Your task to perform on an android device: turn on data saver in the chrome app Image 0: 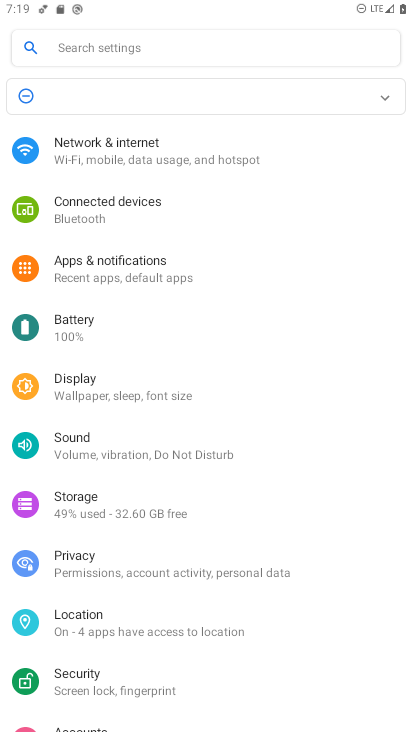
Step 0: drag from (255, 552) to (207, 314)
Your task to perform on an android device: turn on data saver in the chrome app Image 1: 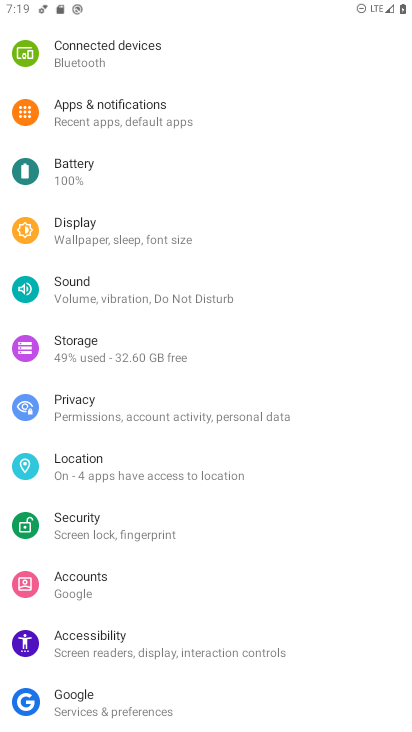
Step 1: press home button
Your task to perform on an android device: turn on data saver in the chrome app Image 2: 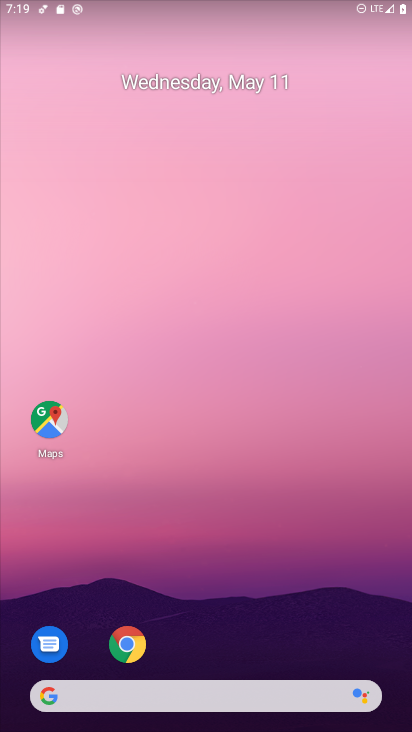
Step 2: click (132, 649)
Your task to perform on an android device: turn on data saver in the chrome app Image 3: 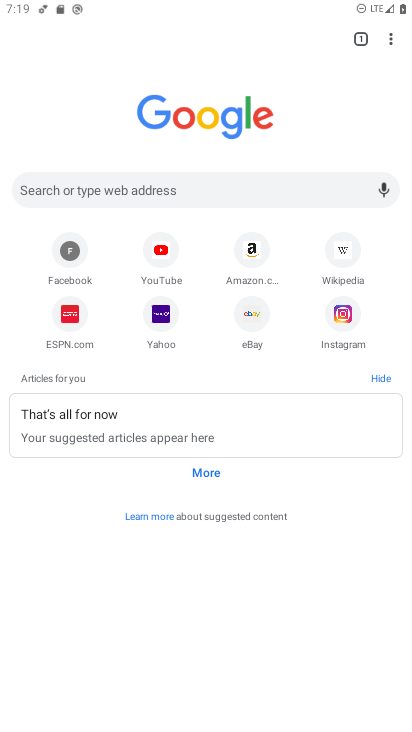
Step 3: click (392, 35)
Your task to perform on an android device: turn on data saver in the chrome app Image 4: 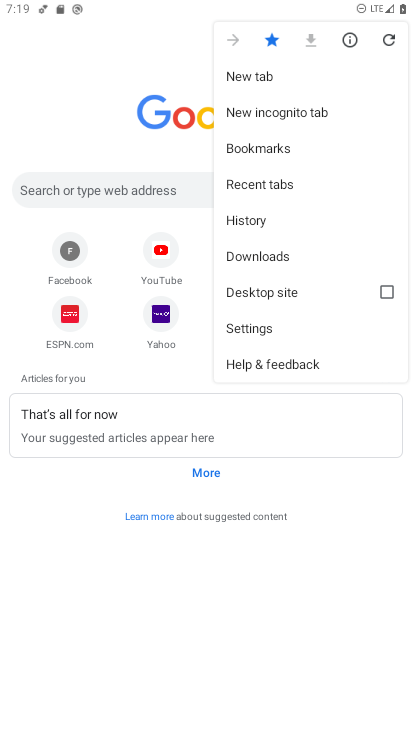
Step 4: click (262, 329)
Your task to perform on an android device: turn on data saver in the chrome app Image 5: 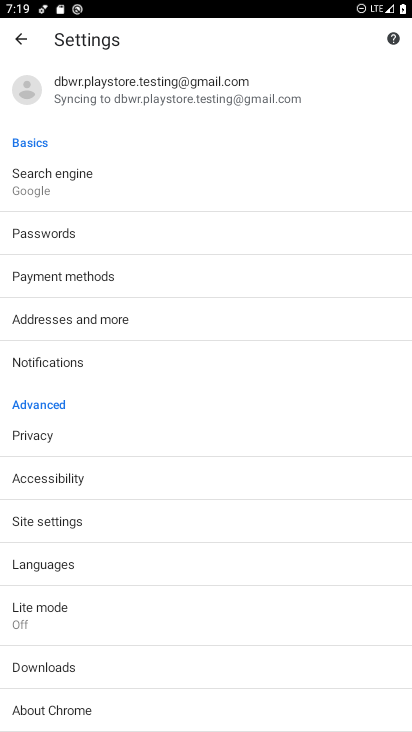
Step 5: click (44, 610)
Your task to perform on an android device: turn on data saver in the chrome app Image 6: 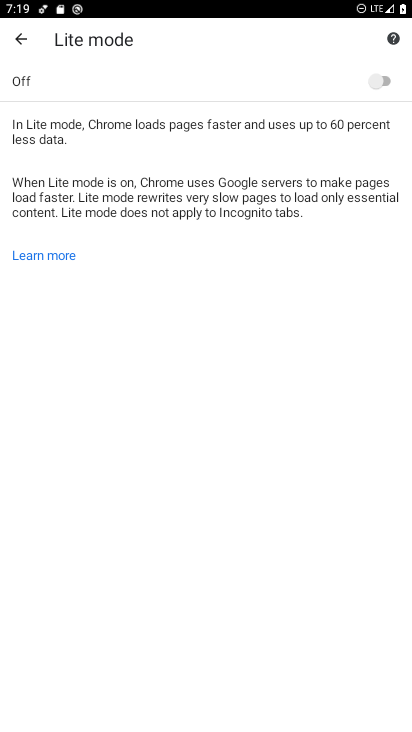
Step 6: click (26, 600)
Your task to perform on an android device: turn on data saver in the chrome app Image 7: 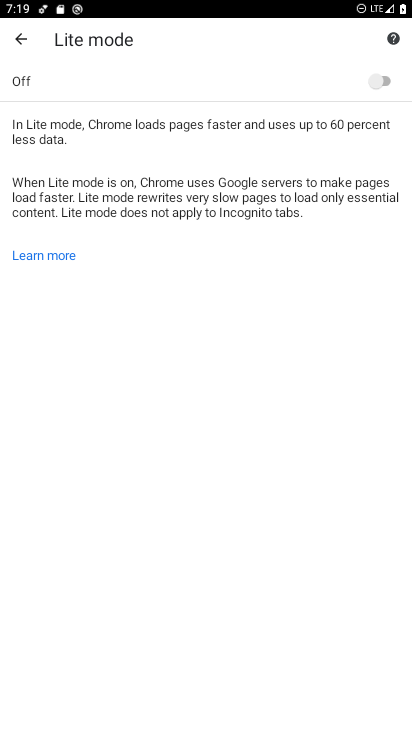
Step 7: click (375, 78)
Your task to perform on an android device: turn on data saver in the chrome app Image 8: 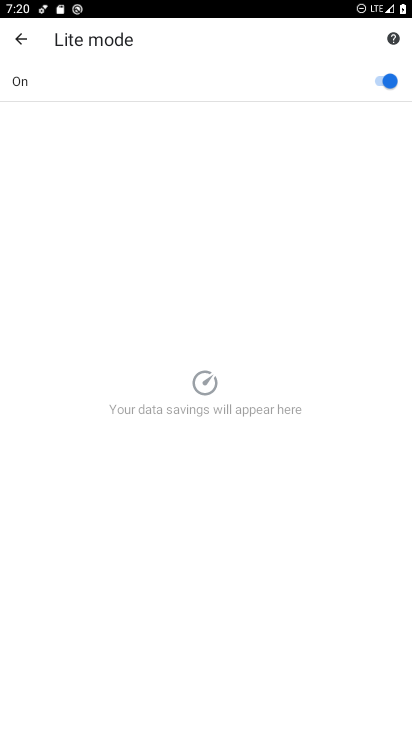
Step 8: task complete